Your task to perform on an android device: open the mobile data screen to see how much data has been used Image 0: 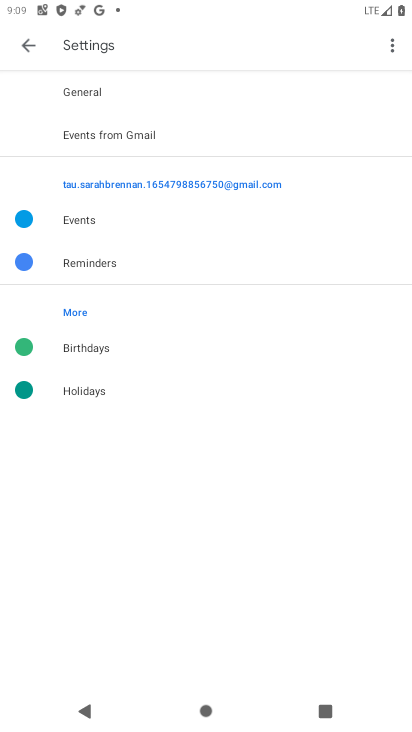
Step 0: press home button
Your task to perform on an android device: open the mobile data screen to see how much data has been used Image 1: 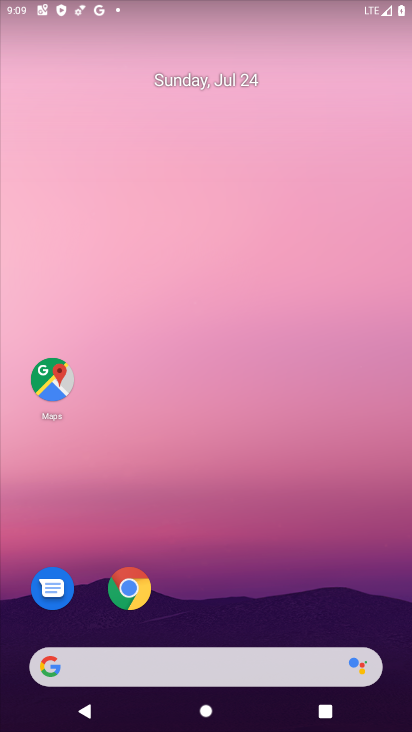
Step 1: drag from (243, 656) to (270, 139)
Your task to perform on an android device: open the mobile data screen to see how much data has been used Image 2: 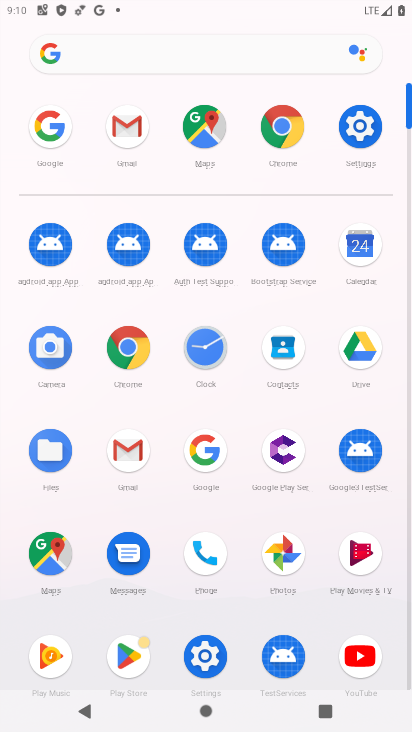
Step 2: click (355, 128)
Your task to perform on an android device: open the mobile data screen to see how much data has been used Image 3: 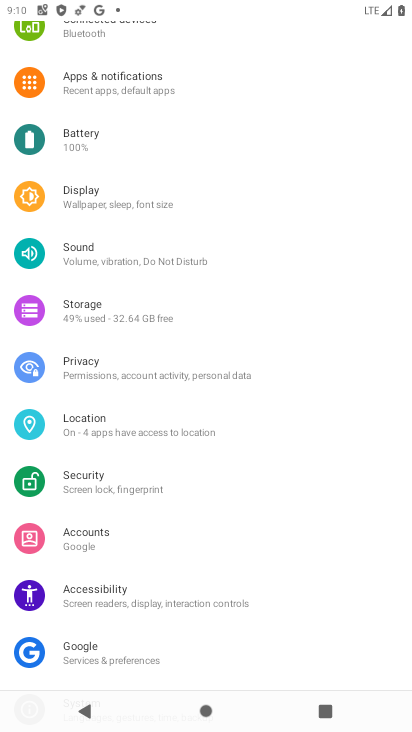
Step 3: drag from (129, 69) to (177, 618)
Your task to perform on an android device: open the mobile data screen to see how much data has been used Image 4: 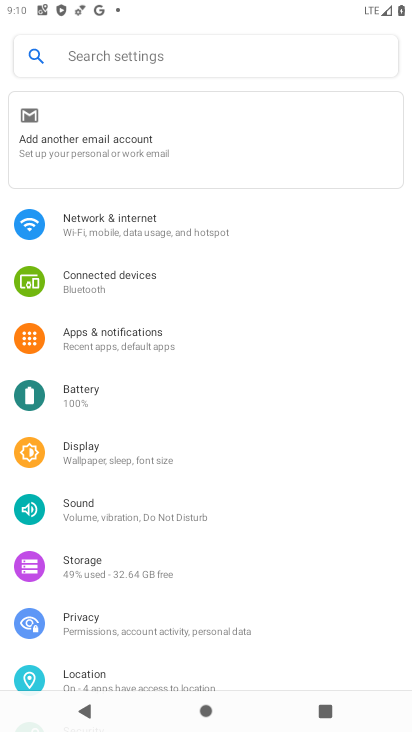
Step 4: click (137, 210)
Your task to perform on an android device: open the mobile data screen to see how much data has been used Image 5: 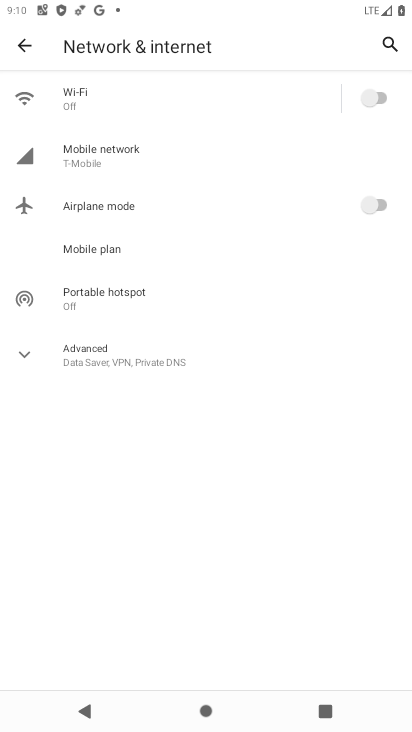
Step 5: click (140, 156)
Your task to perform on an android device: open the mobile data screen to see how much data has been used Image 6: 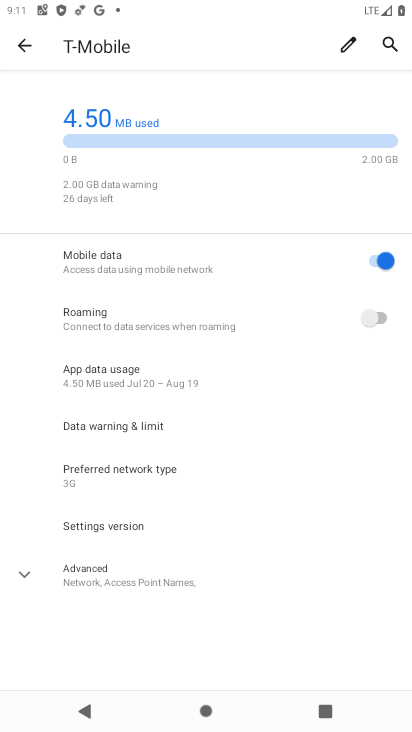
Step 6: task complete